Your task to perform on an android device: turn on showing notifications on the lock screen Image 0: 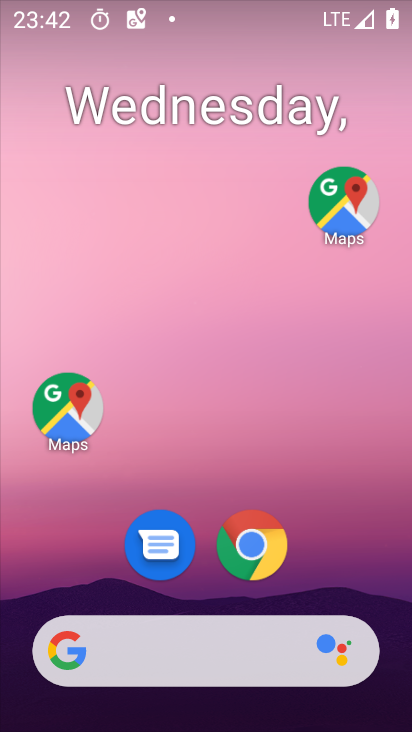
Step 0: drag from (192, 601) to (278, 104)
Your task to perform on an android device: turn on showing notifications on the lock screen Image 1: 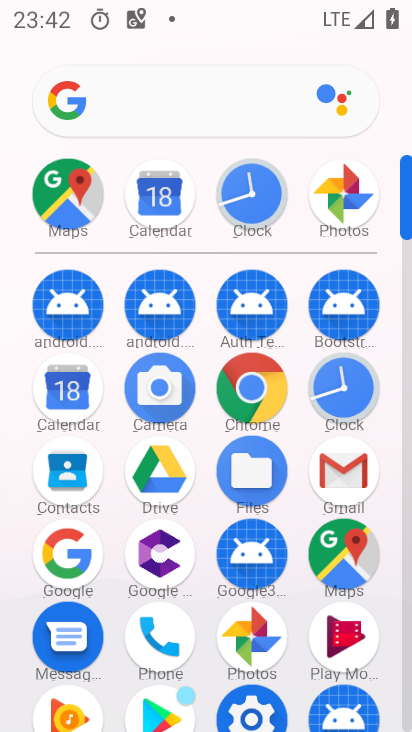
Step 1: click (240, 708)
Your task to perform on an android device: turn on showing notifications on the lock screen Image 2: 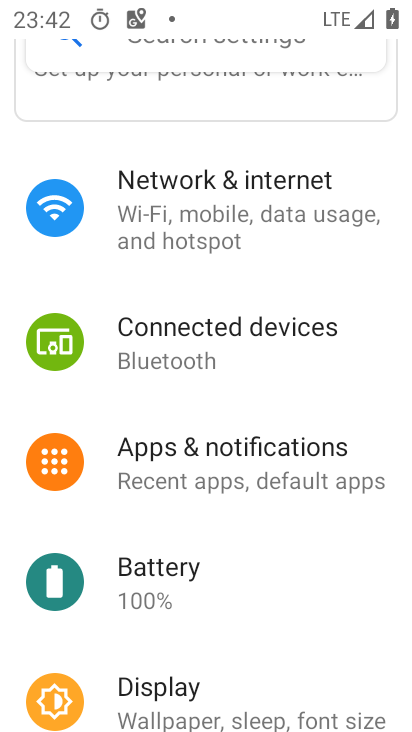
Step 2: click (187, 477)
Your task to perform on an android device: turn on showing notifications on the lock screen Image 3: 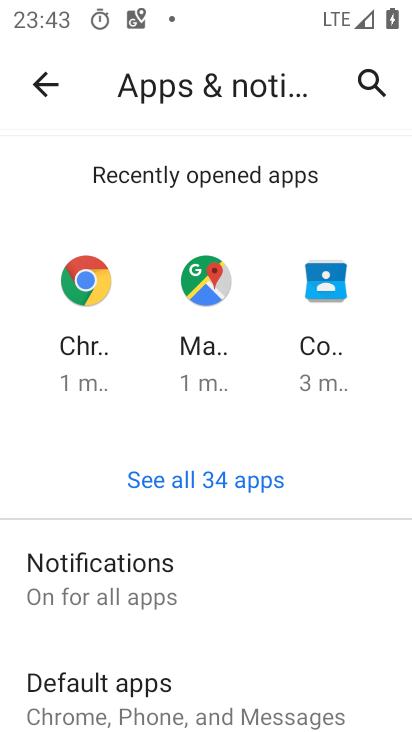
Step 3: click (183, 595)
Your task to perform on an android device: turn on showing notifications on the lock screen Image 4: 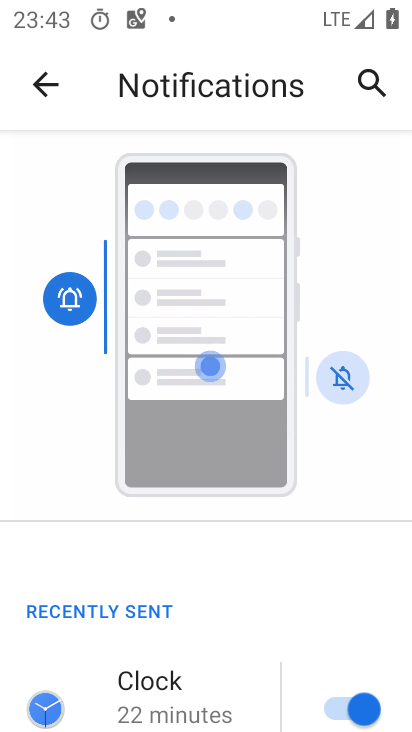
Step 4: drag from (230, 656) to (309, 312)
Your task to perform on an android device: turn on showing notifications on the lock screen Image 5: 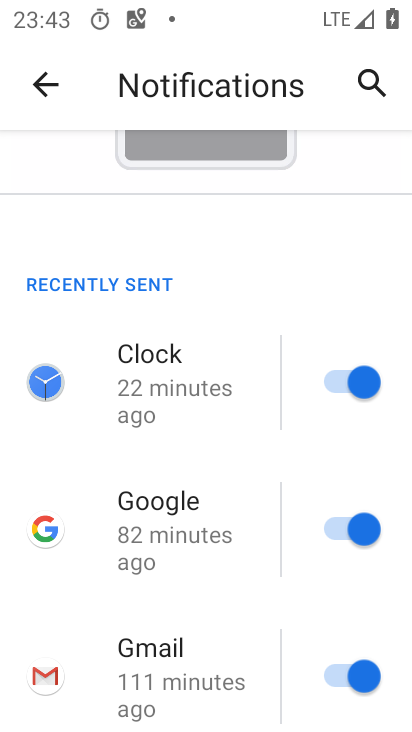
Step 5: drag from (127, 687) to (183, 364)
Your task to perform on an android device: turn on showing notifications on the lock screen Image 6: 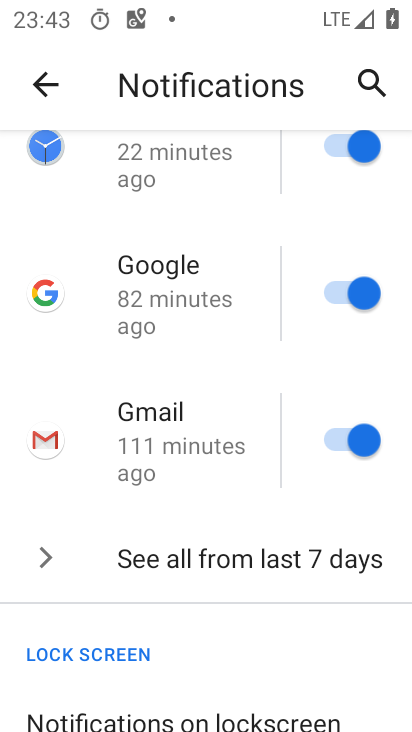
Step 6: drag from (115, 654) to (174, 406)
Your task to perform on an android device: turn on showing notifications on the lock screen Image 7: 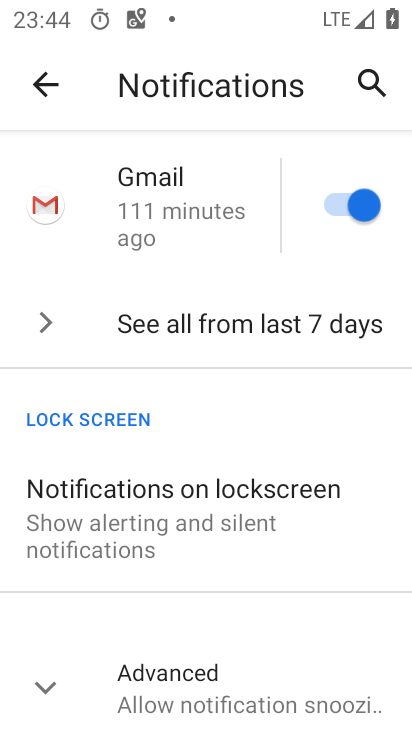
Step 7: click (153, 521)
Your task to perform on an android device: turn on showing notifications on the lock screen Image 8: 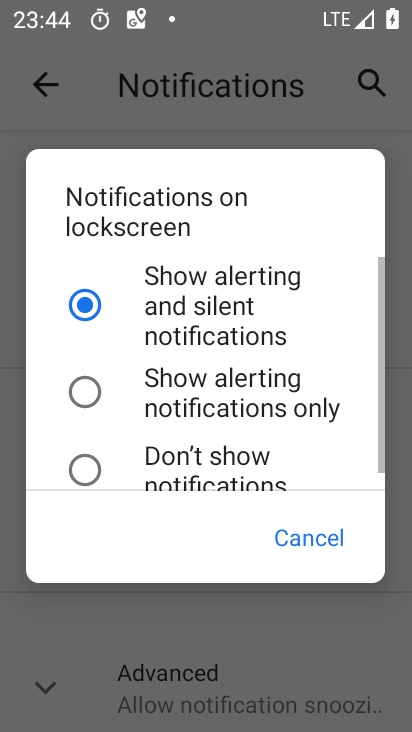
Step 8: click (200, 309)
Your task to perform on an android device: turn on showing notifications on the lock screen Image 9: 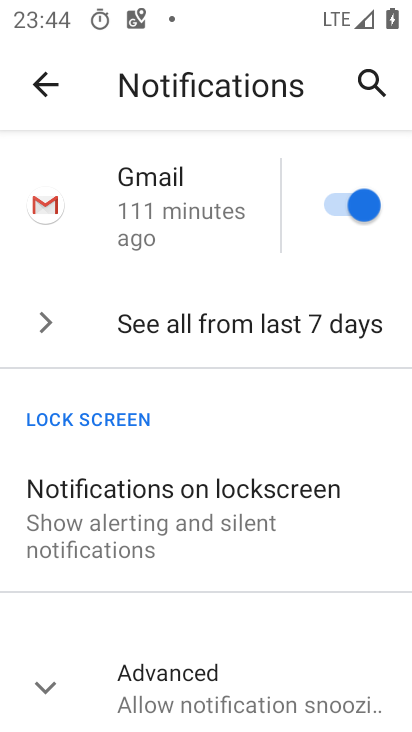
Step 9: task complete